Your task to perform on an android device: uninstall "Gmail" Image 0: 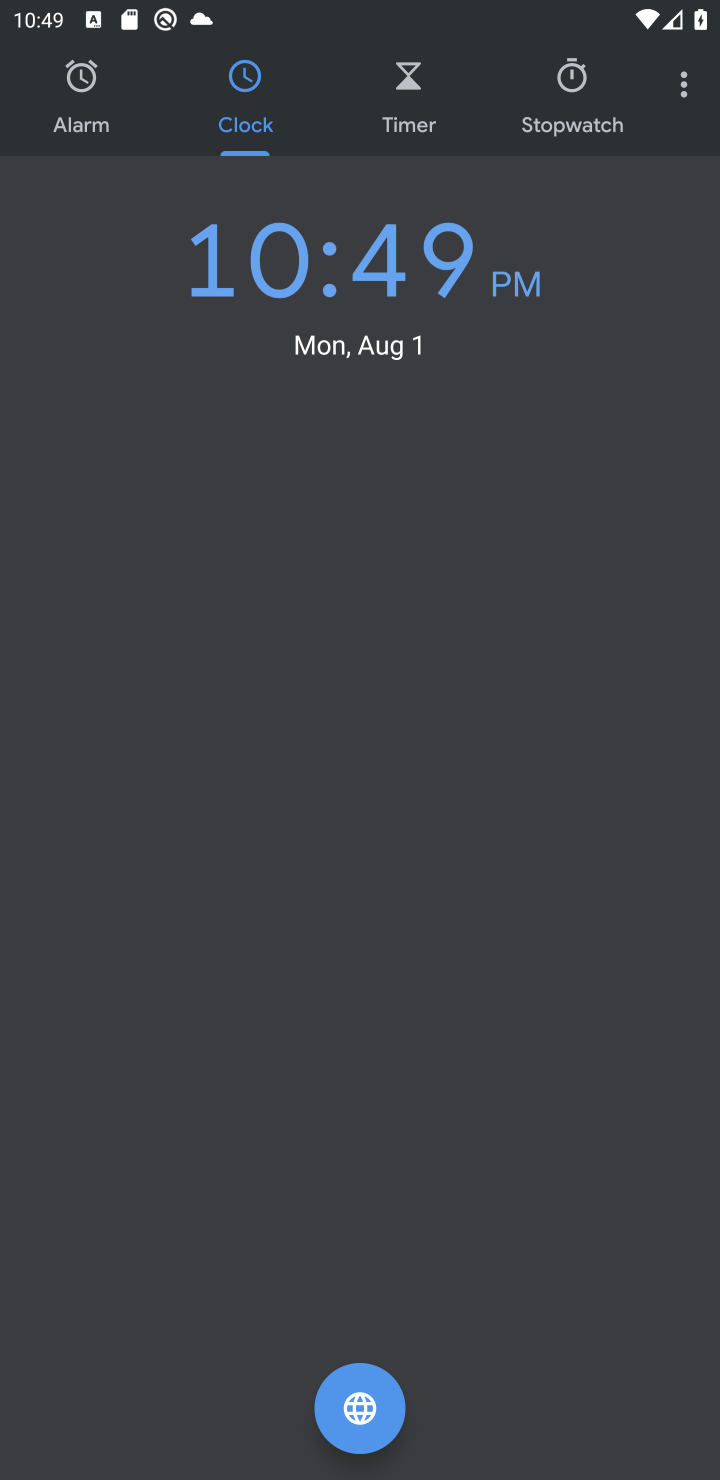
Step 0: press home button
Your task to perform on an android device: uninstall "Gmail" Image 1: 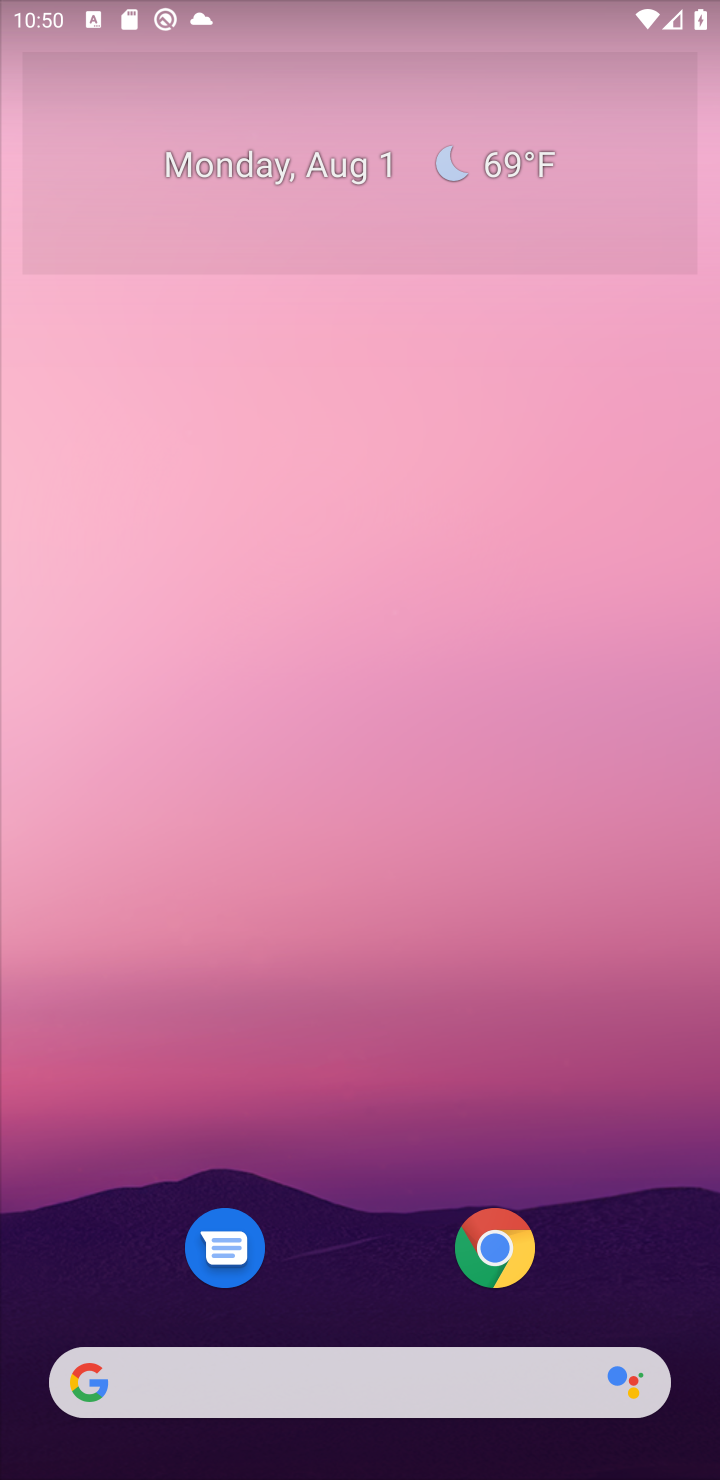
Step 1: drag from (425, 875) to (524, 173)
Your task to perform on an android device: uninstall "Gmail" Image 2: 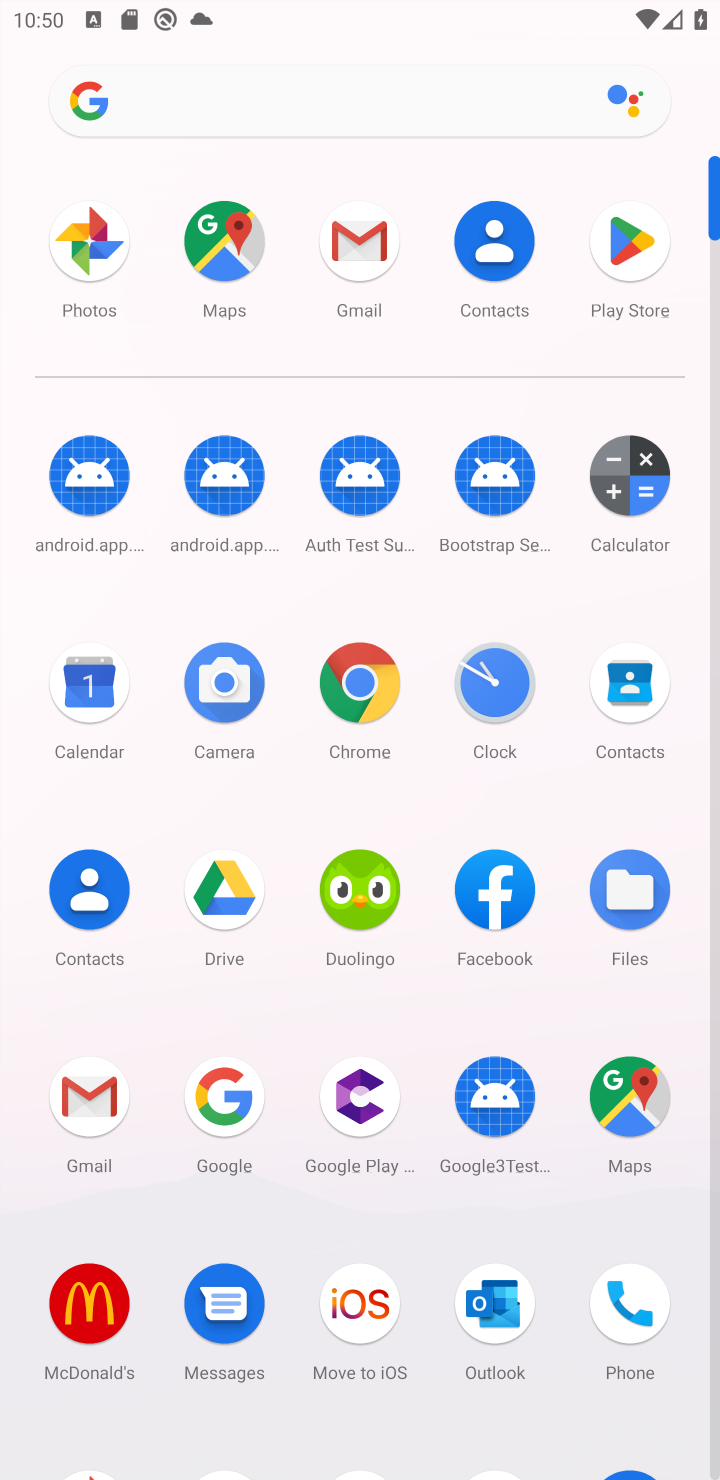
Step 2: click (622, 242)
Your task to perform on an android device: uninstall "Gmail" Image 3: 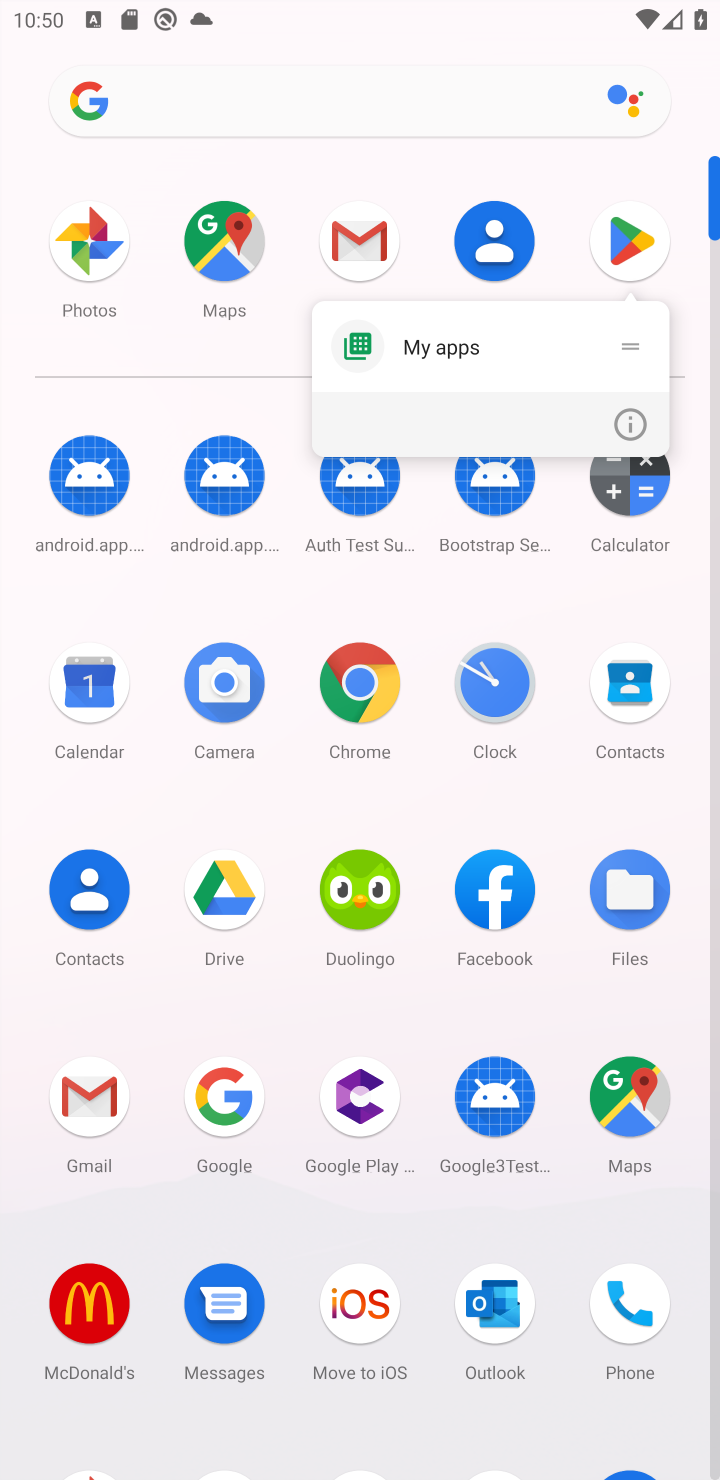
Step 3: click (622, 242)
Your task to perform on an android device: uninstall "Gmail" Image 4: 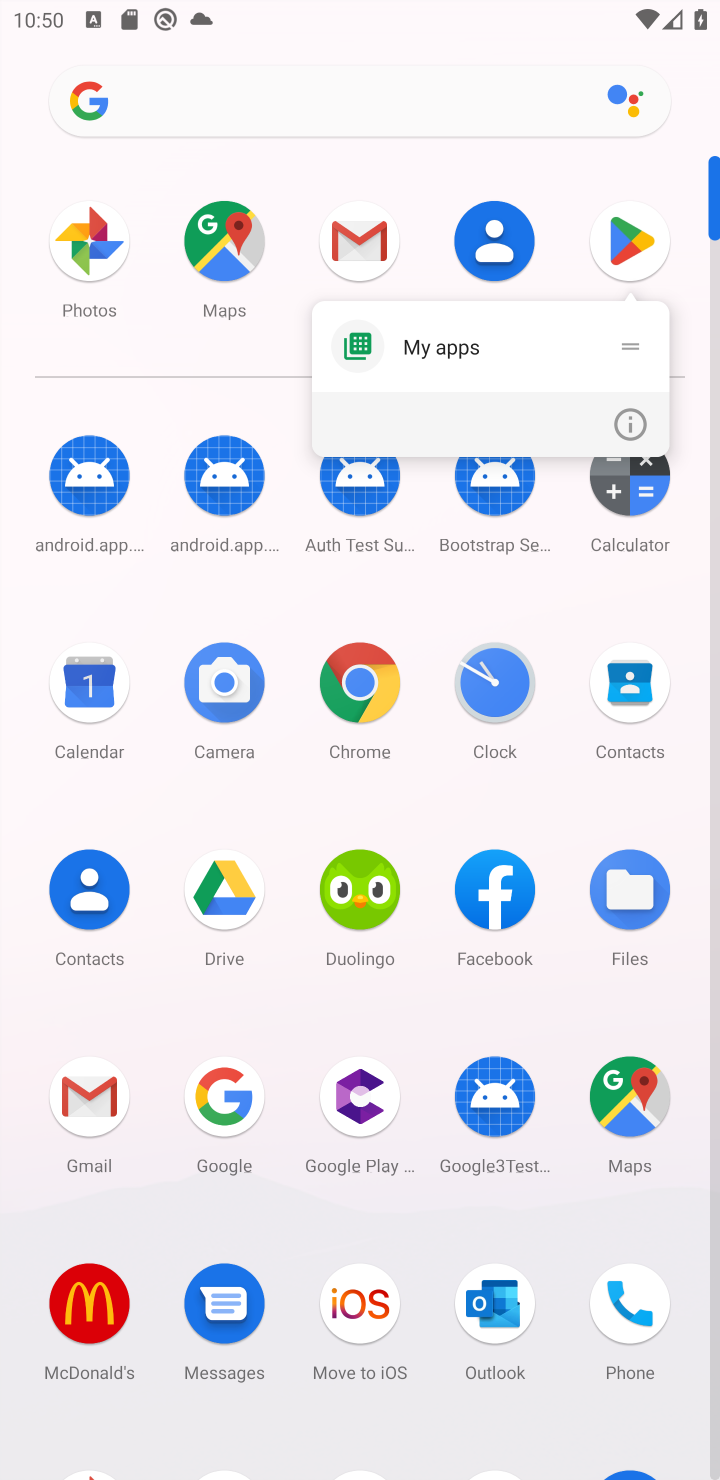
Step 4: click (280, 1210)
Your task to perform on an android device: uninstall "Gmail" Image 5: 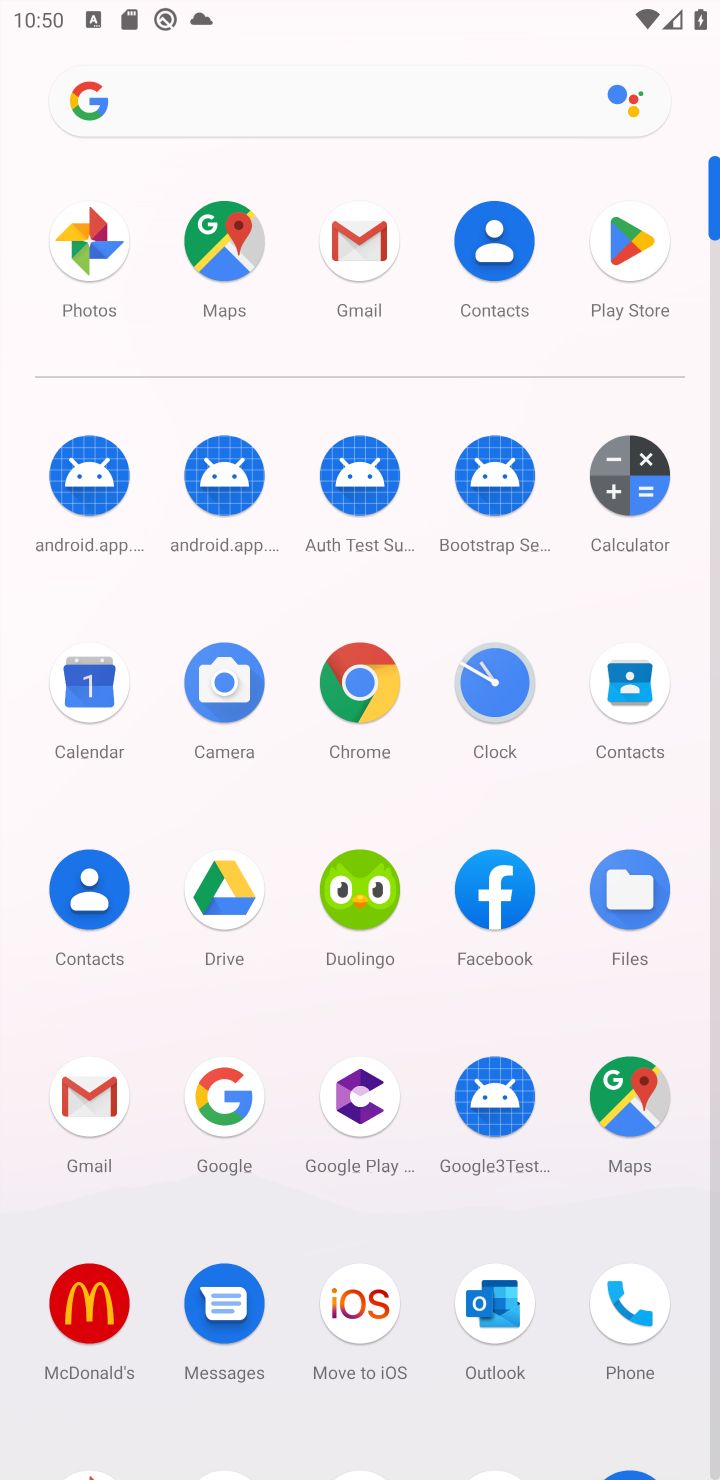
Step 5: drag from (280, 1210) to (342, 476)
Your task to perform on an android device: uninstall "Gmail" Image 6: 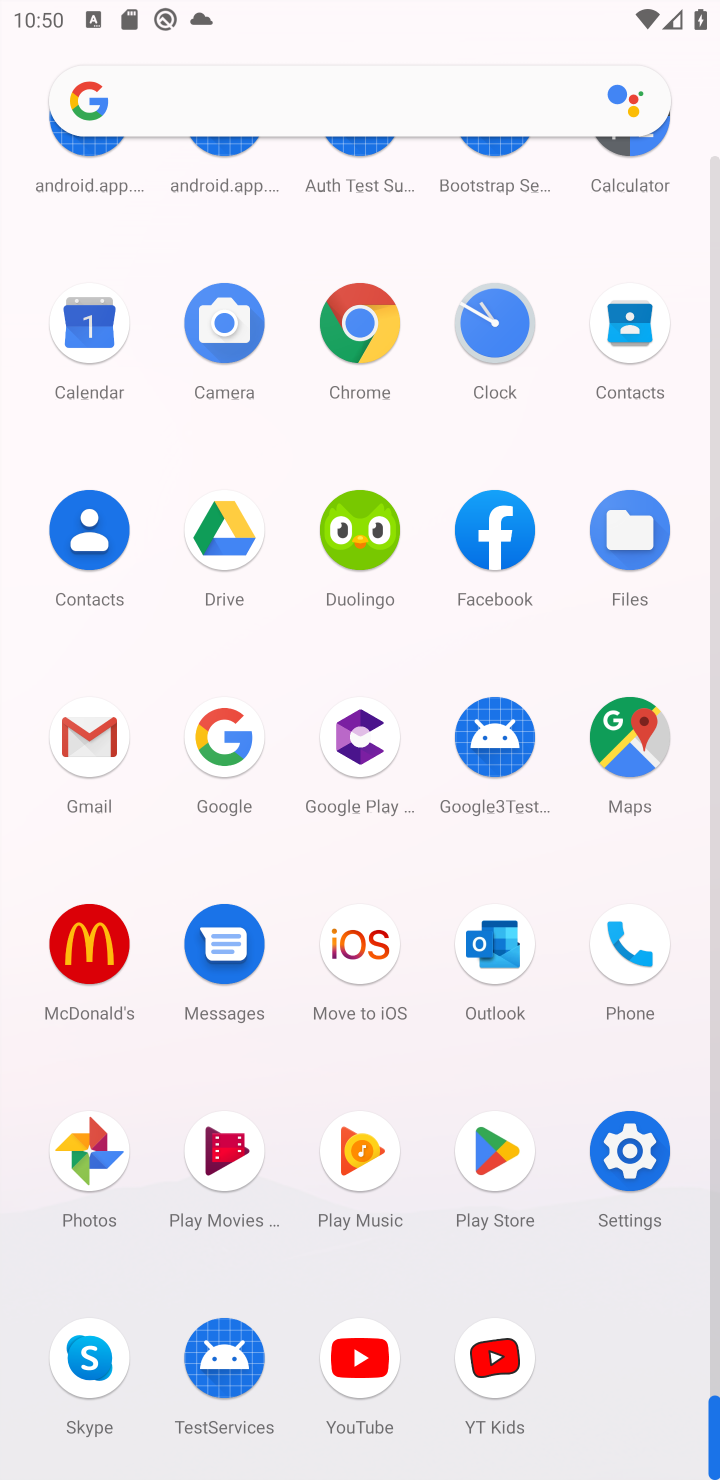
Step 6: click (485, 1144)
Your task to perform on an android device: uninstall "Gmail" Image 7: 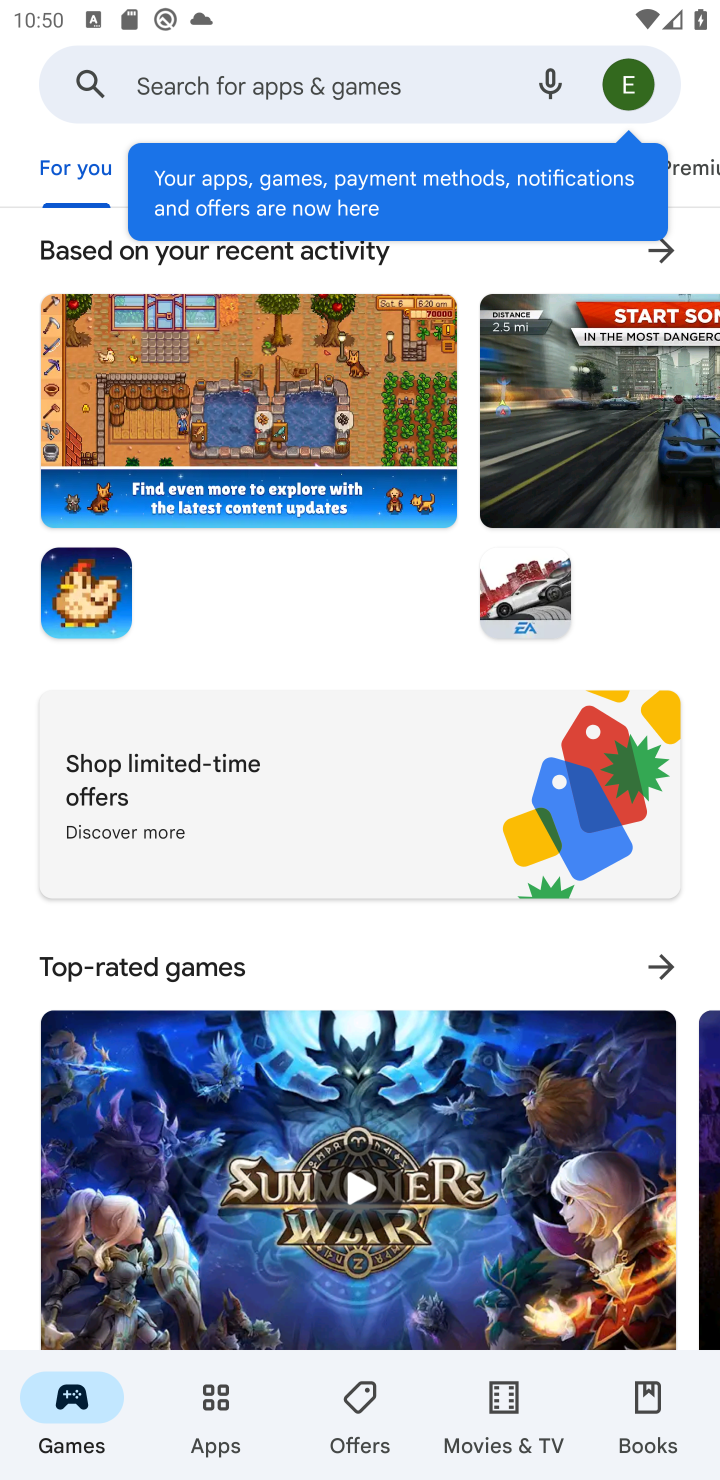
Step 7: click (270, 72)
Your task to perform on an android device: uninstall "Gmail" Image 8: 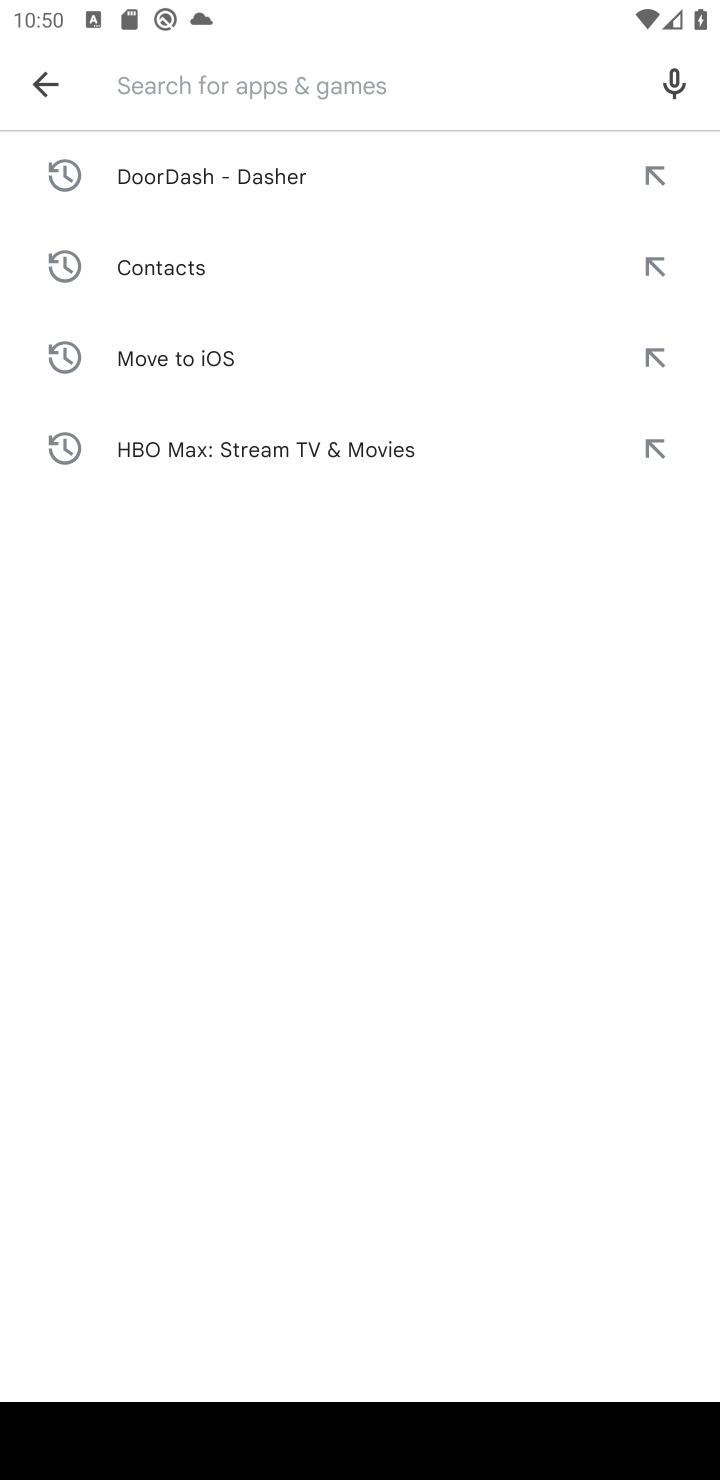
Step 8: type "Gmail"
Your task to perform on an android device: uninstall "Gmail" Image 9: 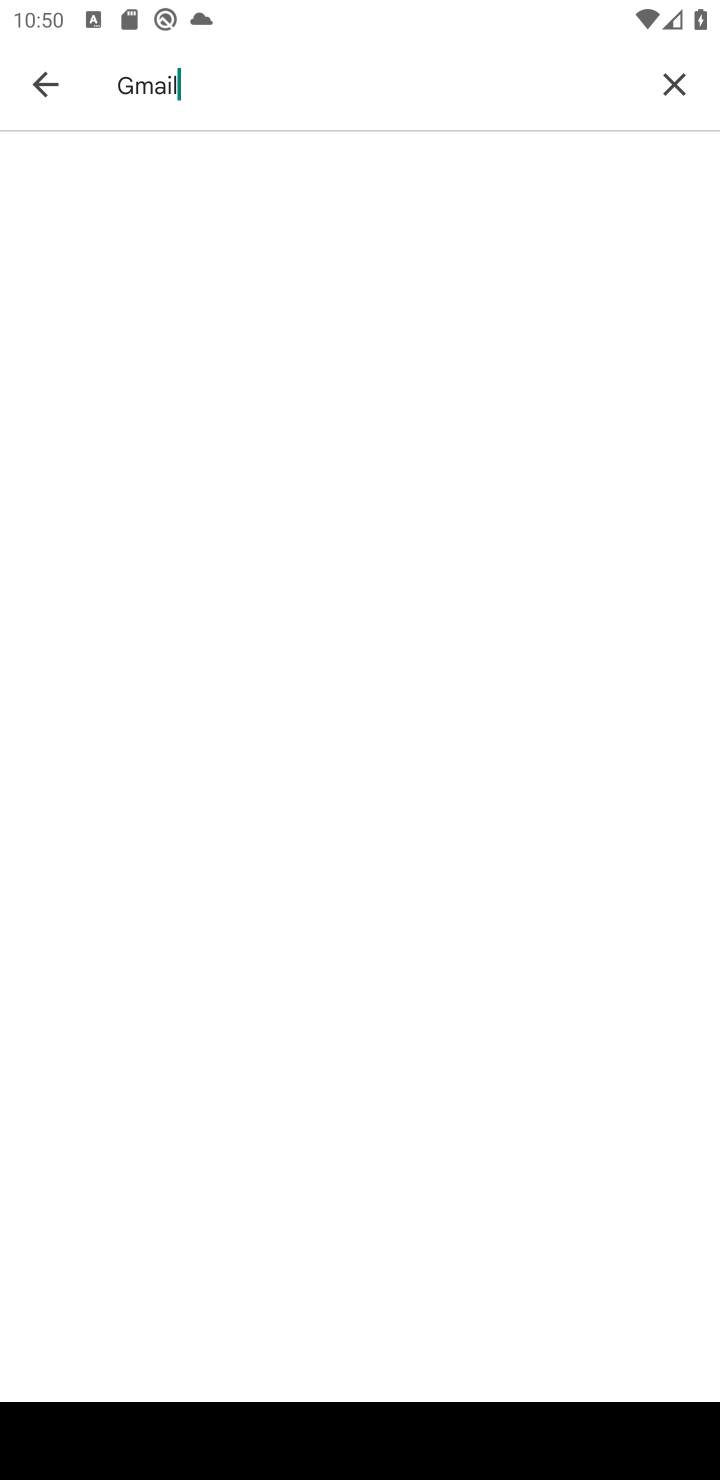
Step 9: press enter
Your task to perform on an android device: uninstall "Gmail" Image 10: 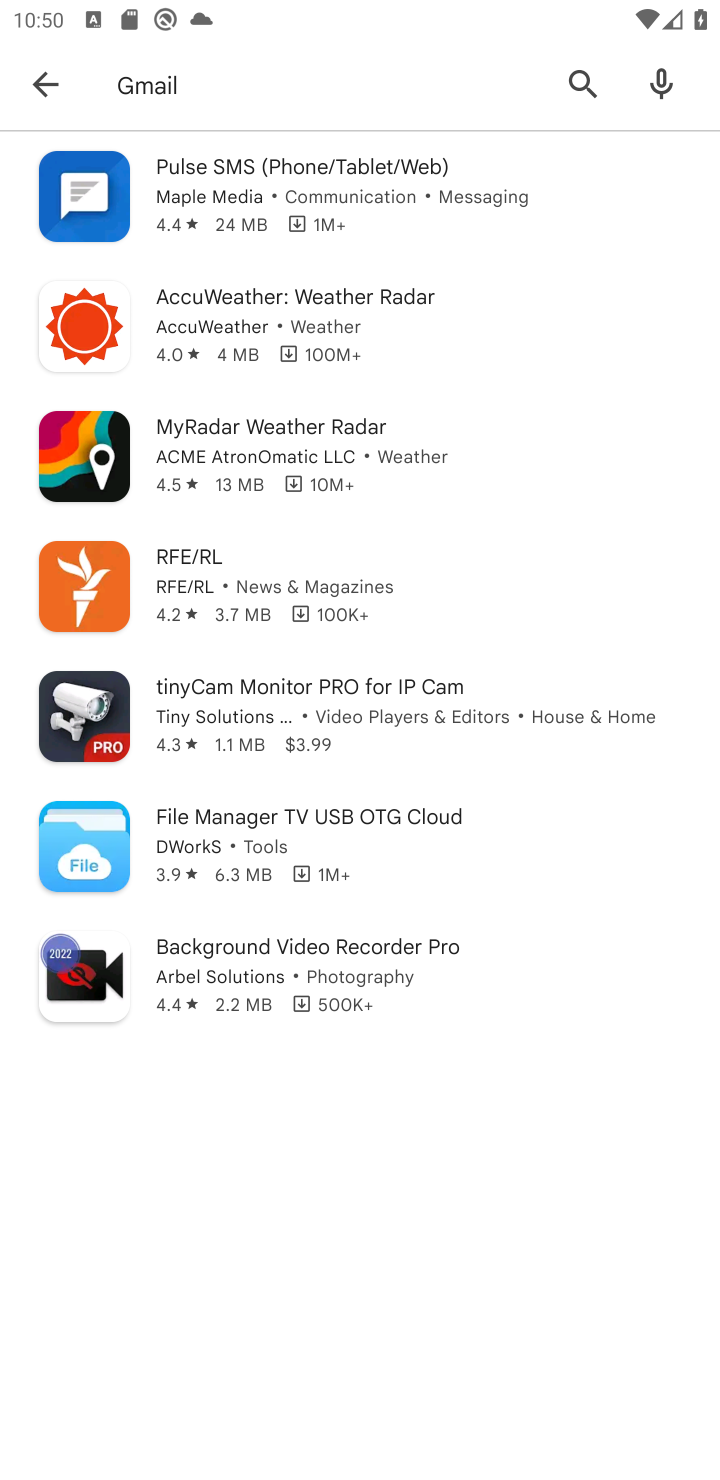
Step 10: task complete